Your task to perform on an android device: change the clock display to digital Image 0: 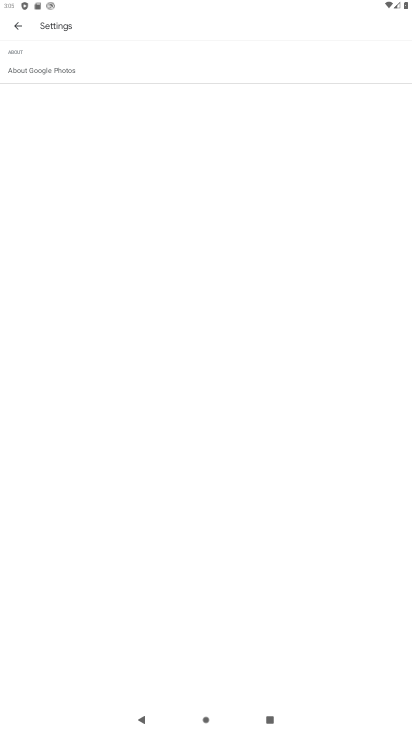
Step 0: press home button
Your task to perform on an android device: change the clock display to digital Image 1: 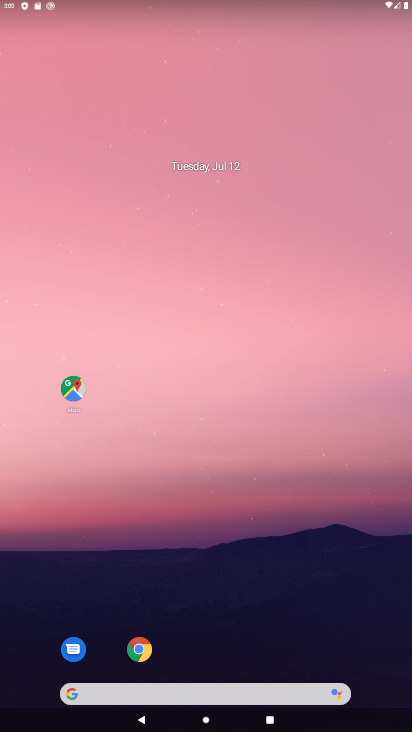
Step 1: drag from (129, 688) to (143, 261)
Your task to perform on an android device: change the clock display to digital Image 2: 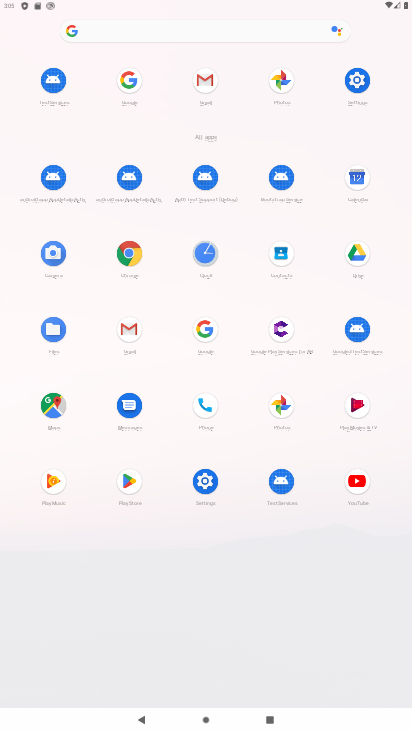
Step 2: click (198, 261)
Your task to perform on an android device: change the clock display to digital Image 3: 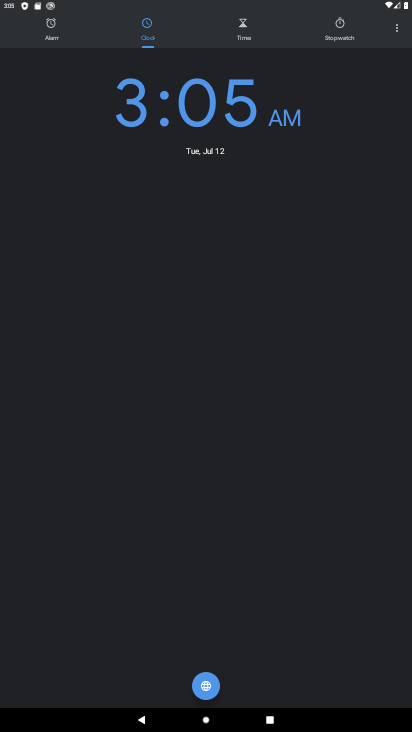
Step 3: click (401, 29)
Your task to perform on an android device: change the clock display to digital Image 4: 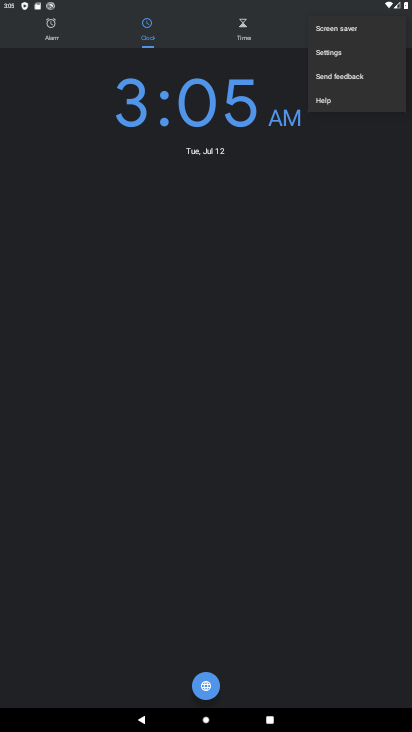
Step 4: click (329, 50)
Your task to perform on an android device: change the clock display to digital Image 5: 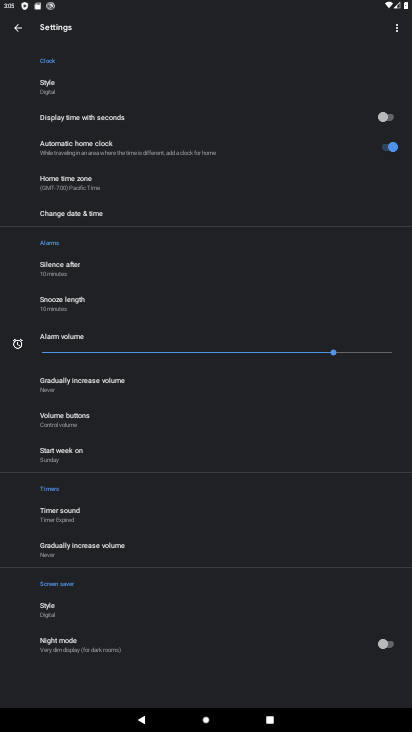
Step 5: click (52, 92)
Your task to perform on an android device: change the clock display to digital Image 6: 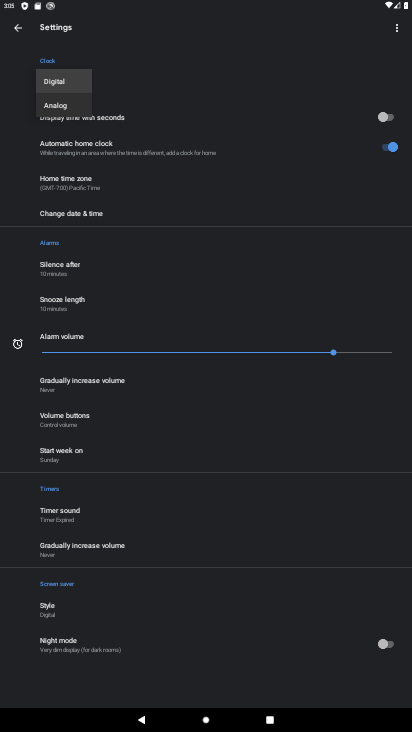
Step 6: click (63, 86)
Your task to perform on an android device: change the clock display to digital Image 7: 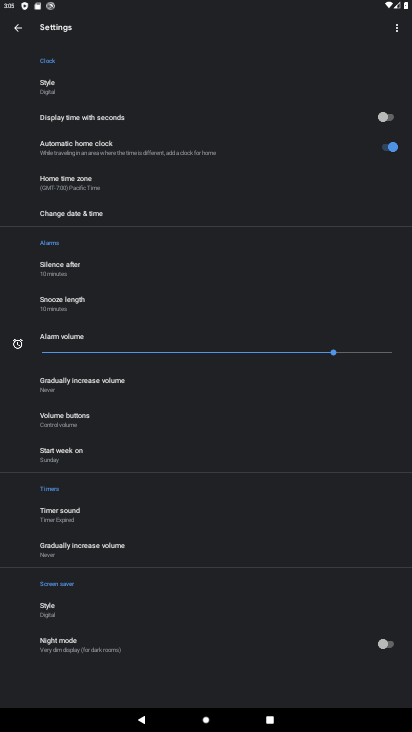
Step 7: task complete